Your task to perform on an android device: see tabs open on other devices in the chrome app Image 0: 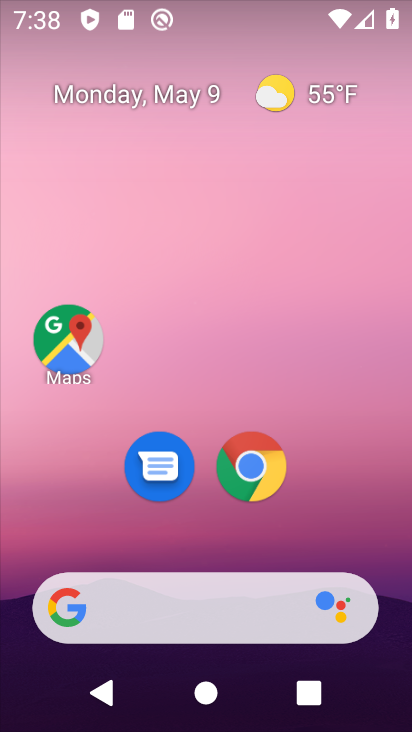
Step 0: drag from (367, 583) to (194, 25)
Your task to perform on an android device: see tabs open on other devices in the chrome app Image 1: 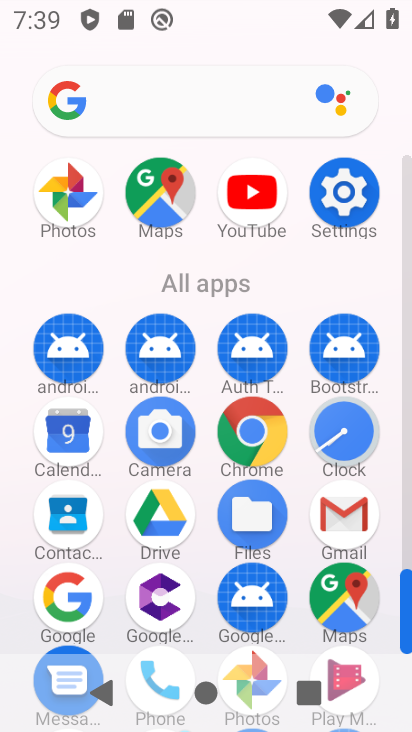
Step 1: click (258, 429)
Your task to perform on an android device: see tabs open on other devices in the chrome app Image 2: 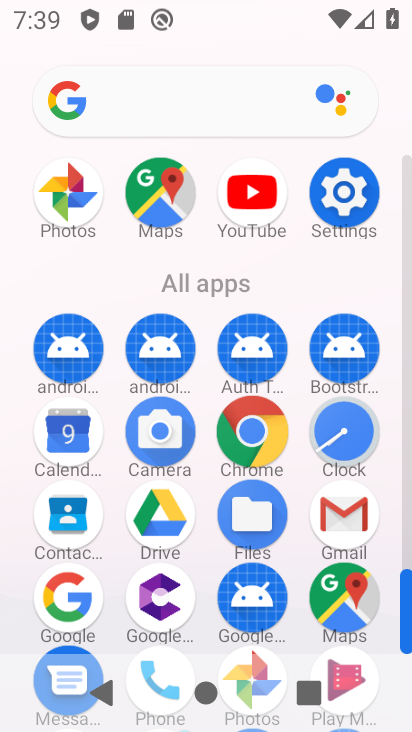
Step 2: click (259, 429)
Your task to perform on an android device: see tabs open on other devices in the chrome app Image 3: 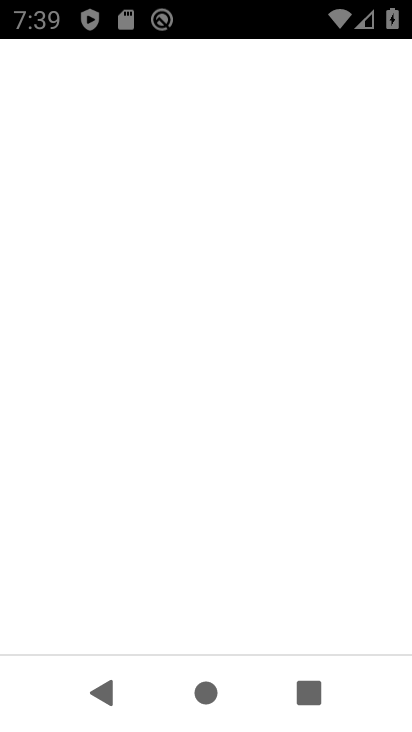
Step 3: click (259, 429)
Your task to perform on an android device: see tabs open on other devices in the chrome app Image 4: 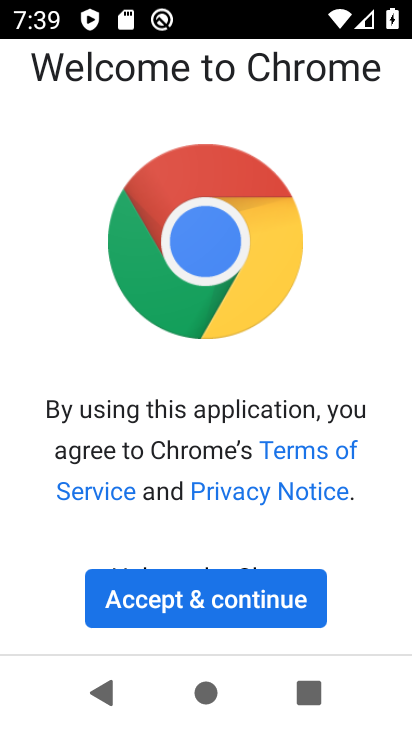
Step 4: click (224, 595)
Your task to perform on an android device: see tabs open on other devices in the chrome app Image 5: 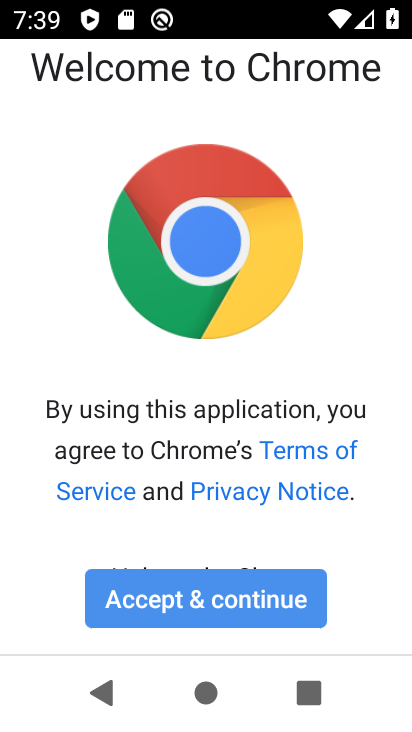
Step 5: click (224, 595)
Your task to perform on an android device: see tabs open on other devices in the chrome app Image 6: 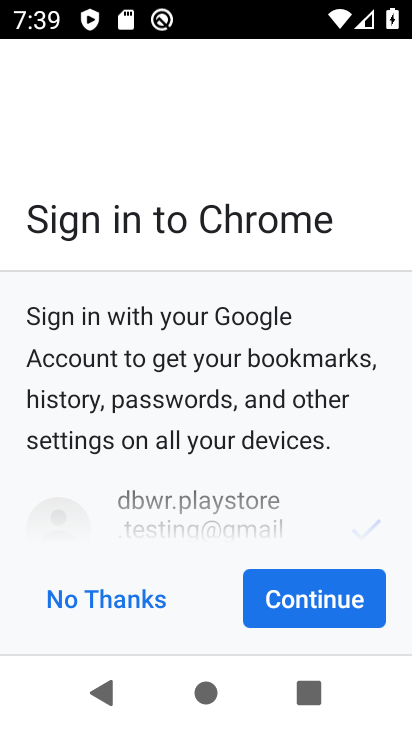
Step 6: click (300, 587)
Your task to perform on an android device: see tabs open on other devices in the chrome app Image 7: 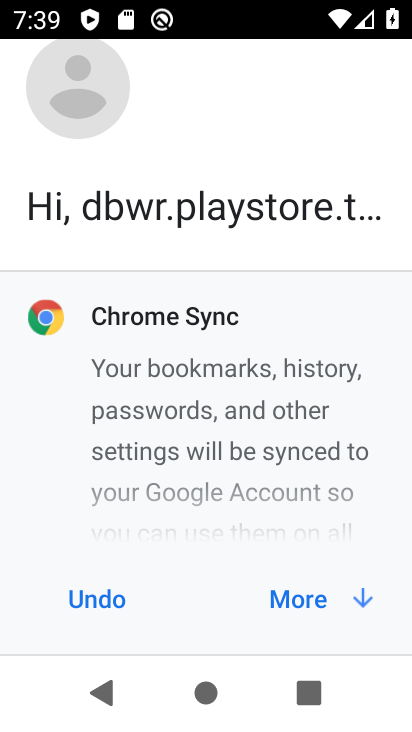
Step 7: click (303, 588)
Your task to perform on an android device: see tabs open on other devices in the chrome app Image 8: 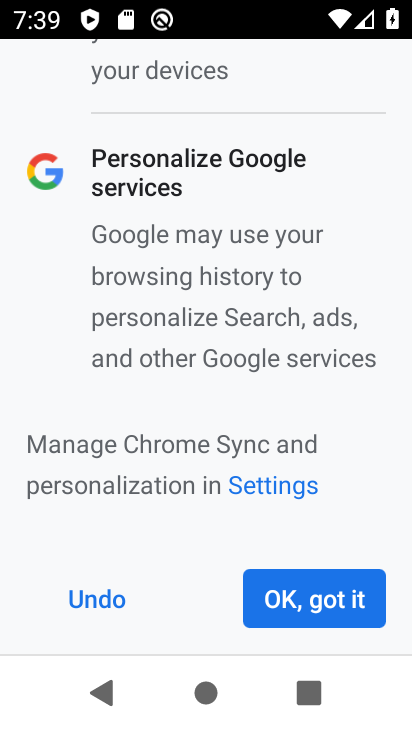
Step 8: click (307, 593)
Your task to perform on an android device: see tabs open on other devices in the chrome app Image 9: 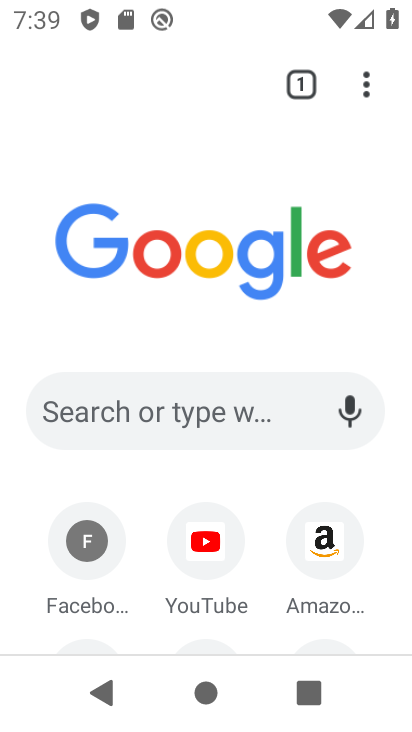
Step 9: drag from (361, 83) to (321, 470)
Your task to perform on an android device: see tabs open on other devices in the chrome app Image 10: 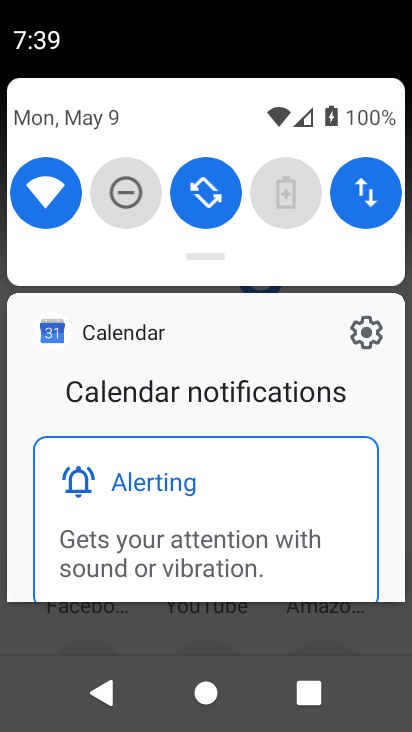
Step 10: press back button
Your task to perform on an android device: see tabs open on other devices in the chrome app Image 11: 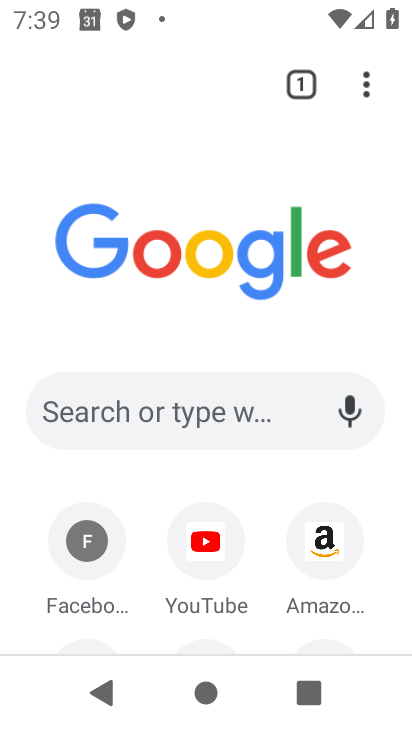
Step 11: click (364, 79)
Your task to perform on an android device: see tabs open on other devices in the chrome app Image 12: 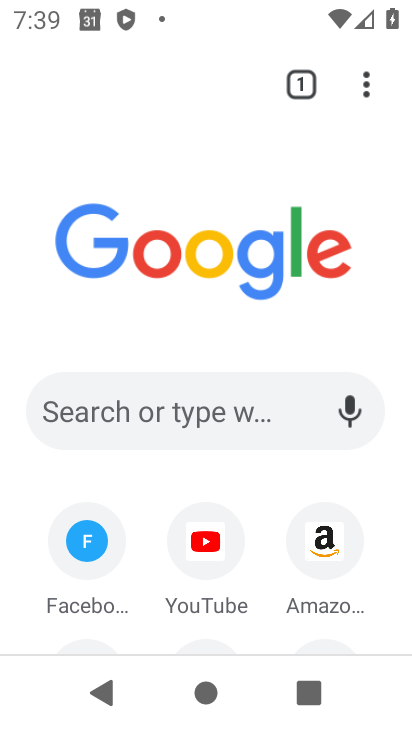
Step 12: click (364, 79)
Your task to perform on an android device: see tabs open on other devices in the chrome app Image 13: 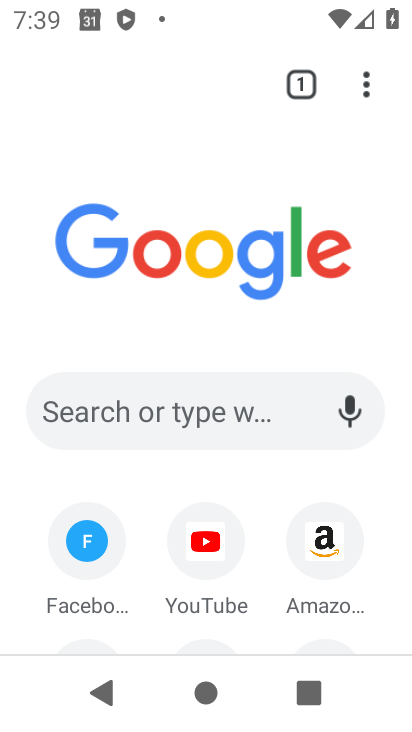
Step 13: drag from (364, 79) to (91, 399)
Your task to perform on an android device: see tabs open on other devices in the chrome app Image 14: 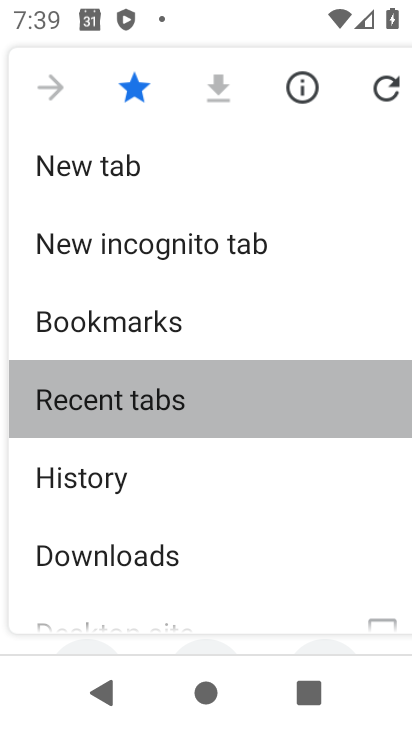
Step 14: click (94, 398)
Your task to perform on an android device: see tabs open on other devices in the chrome app Image 15: 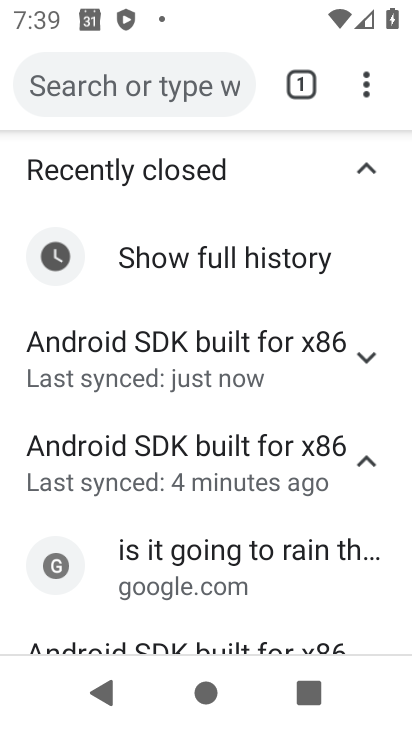
Step 15: task complete